Your task to perform on an android device: turn off airplane mode Image 0: 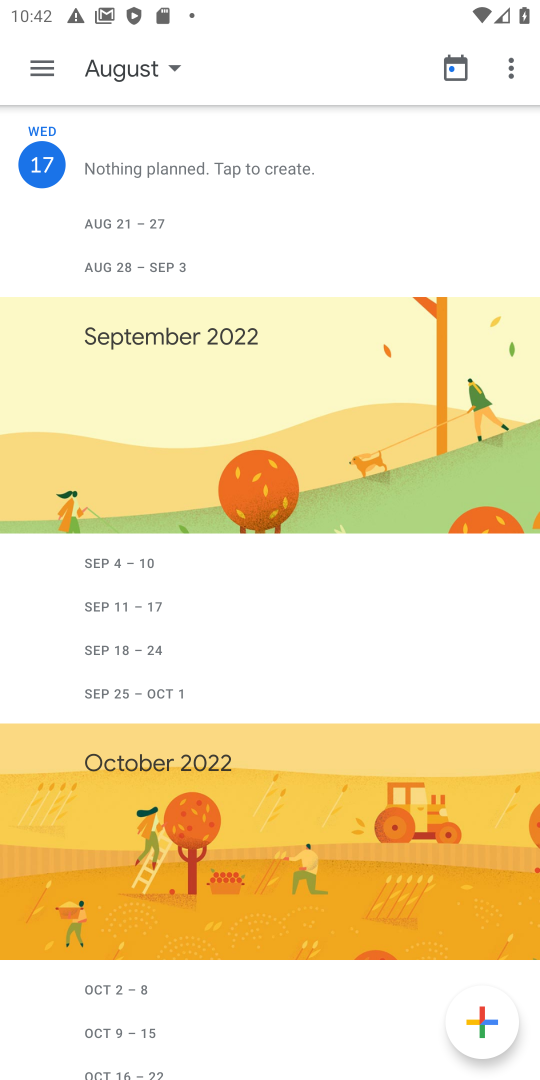
Step 0: press home button
Your task to perform on an android device: turn off airplane mode Image 1: 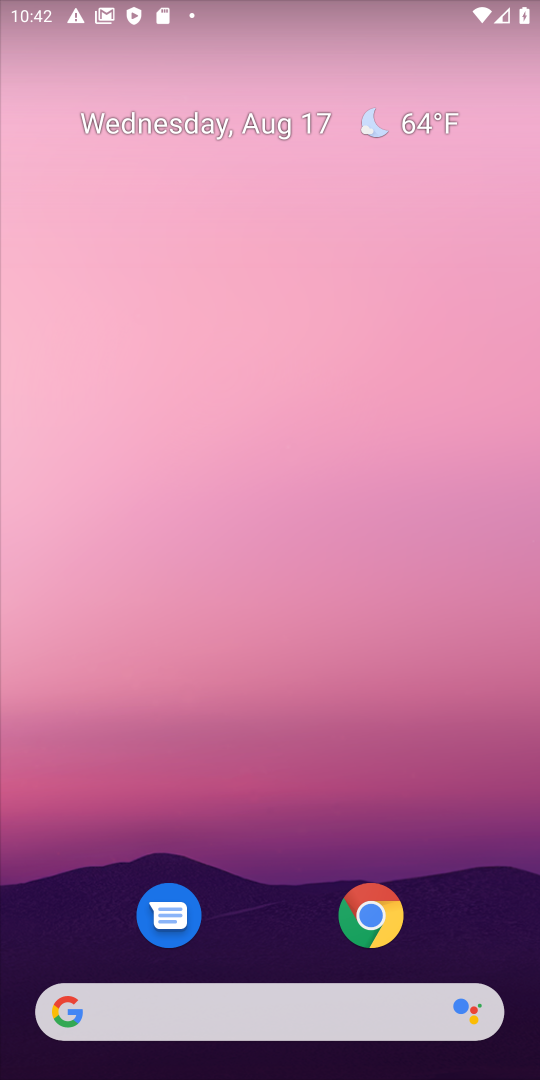
Step 1: drag from (293, 912) to (159, 0)
Your task to perform on an android device: turn off airplane mode Image 2: 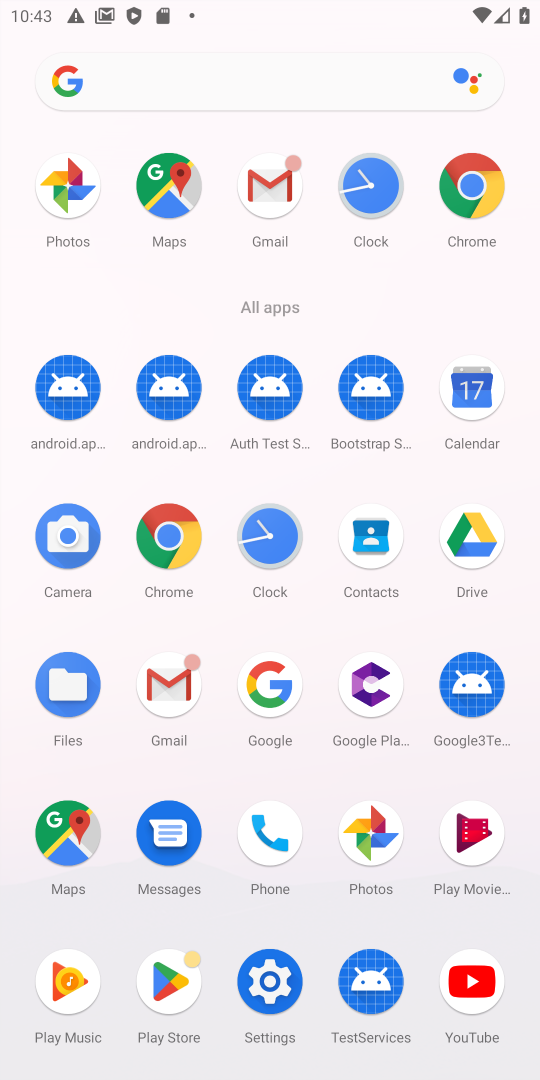
Step 2: click (268, 977)
Your task to perform on an android device: turn off airplane mode Image 3: 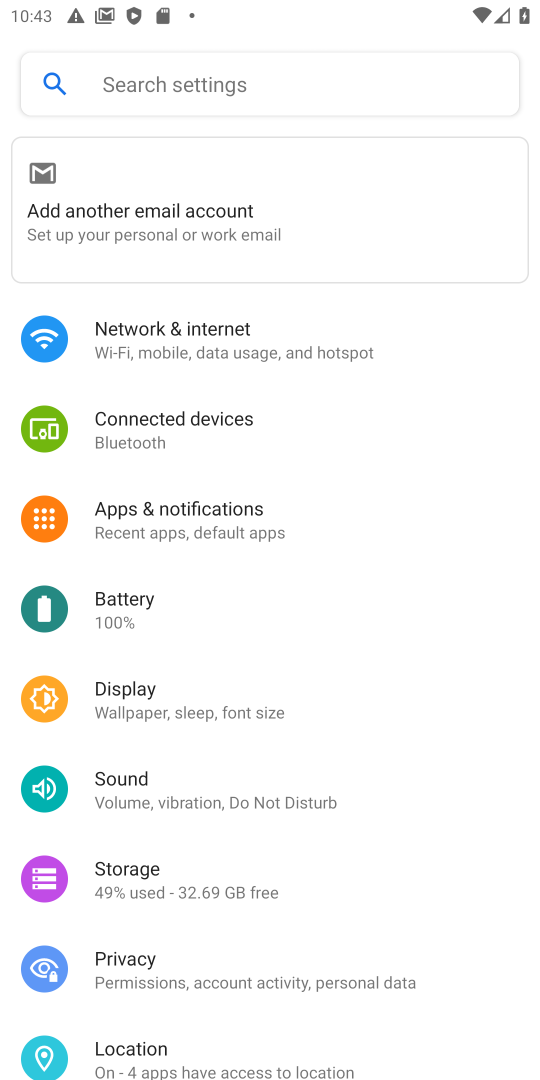
Step 3: click (129, 325)
Your task to perform on an android device: turn off airplane mode Image 4: 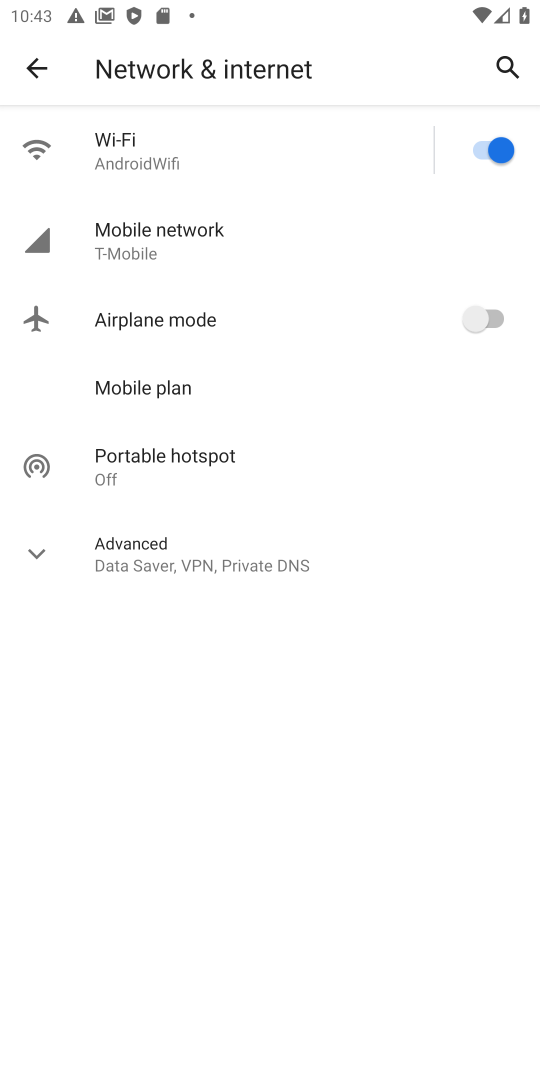
Step 4: task complete